Your task to perform on an android device: Look up the best rated Nike shoes on Nike.com Image 0: 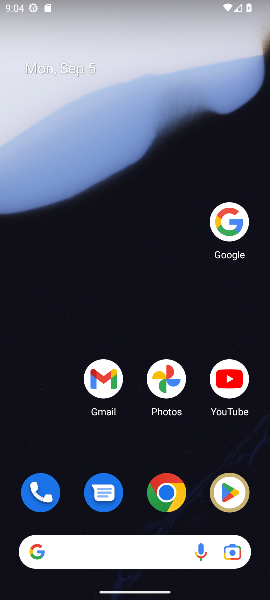
Step 0: click (231, 204)
Your task to perform on an android device: Look up the best rated Nike shoes on Nike.com Image 1: 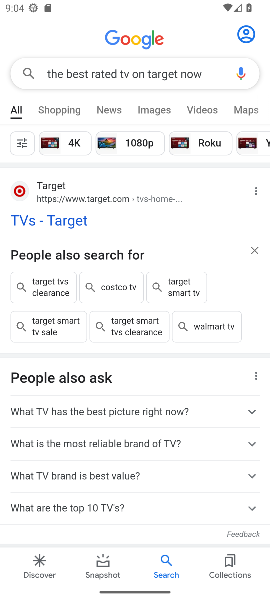
Step 1: click (192, 66)
Your task to perform on an android device: Look up the best rated Nike shoes on Nike.com Image 2: 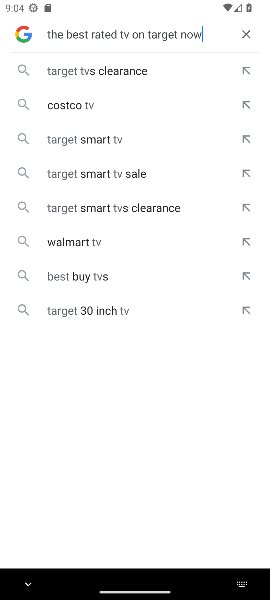
Step 2: click (249, 27)
Your task to perform on an android device: Look up the best rated Nike shoes on Nike.com Image 3: 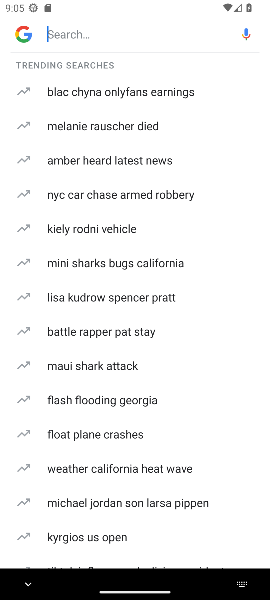
Step 3: click (123, 17)
Your task to perform on an android device: Look up the best rated Nike shoes on Nike.com Image 4: 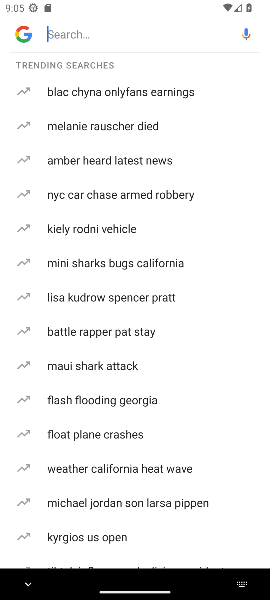
Step 4: type " the best rated Nike shoes on Nike.com "
Your task to perform on an android device: Look up the best rated Nike shoes on Nike.com Image 5: 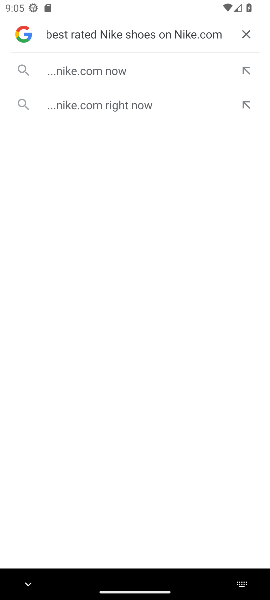
Step 5: click (123, 63)
Your task to perform on an android device: Look up the best rated Nike shoes on Nike.com Image 6: 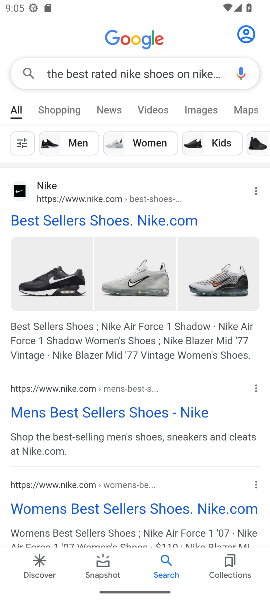
Step 6: click (143, 222)
Your task to perform on an android device: Look up the best rated Nike shoes on Nike.com Image 7: 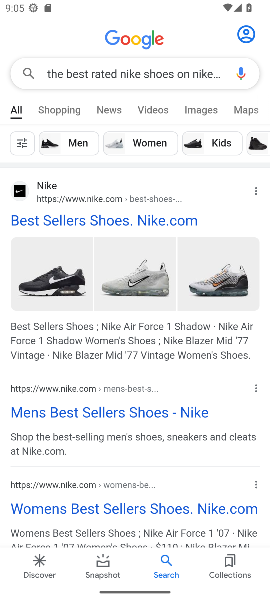
Step 7: click (129, 212)
Your task to perform on an android device: Look up the best rated Nike shoes on Nike.com Image 8: 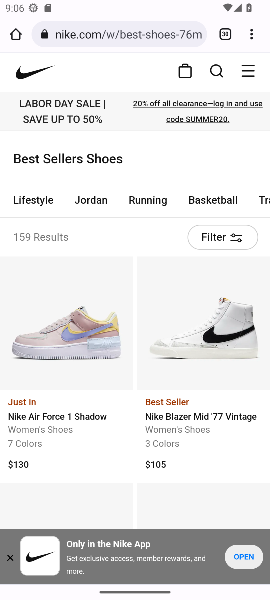
Step 8: task complete